Your task to perform on an android device: Open Maps and search for coffee Image 0: 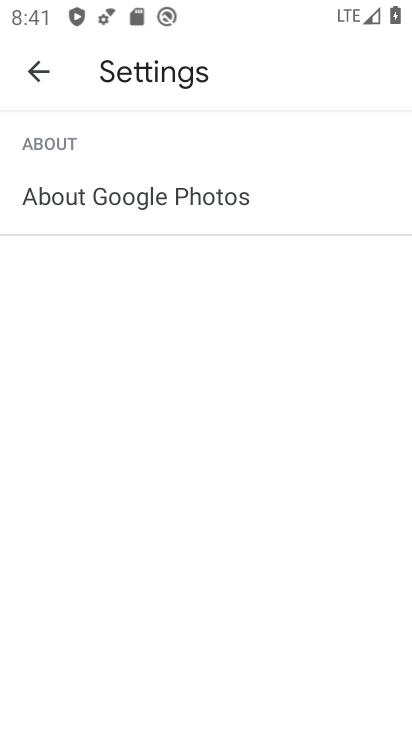
Step 0: press home button
Your task to perform on an android device: Open Maps and search for coffee Image 1: 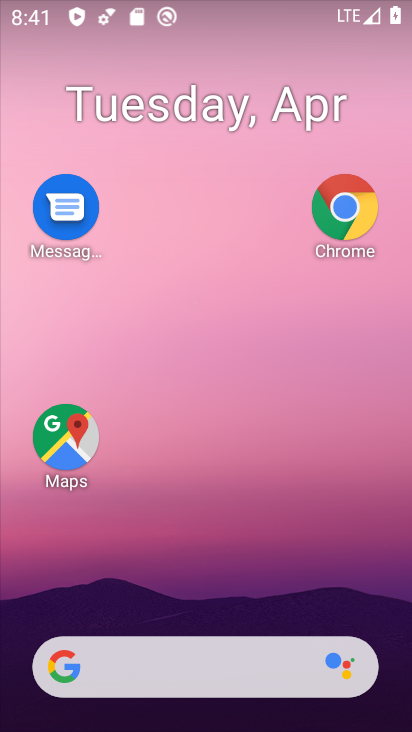
Step 1: click (56, 428)
Your task to perform on an android device: Open Maps and search for coffee Image 2: 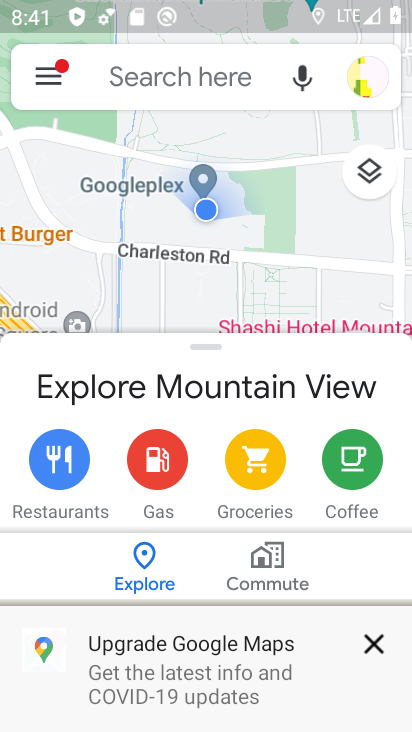
Step 2: click (149, 67)
Your task to perform on an android device: Open Maps and search for coffee Image 3: 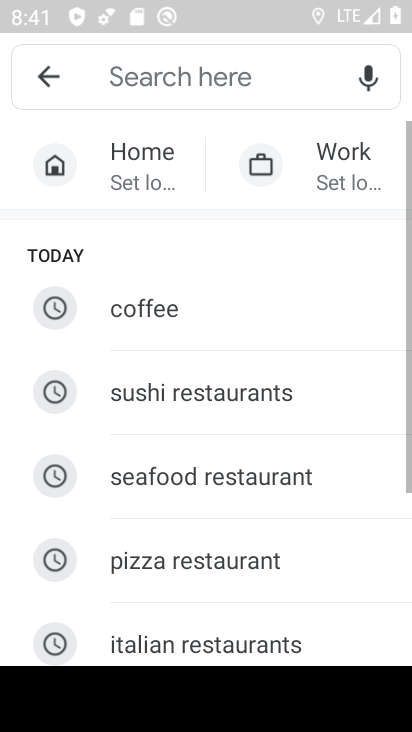
Step 3: click (170, 303)
Your task to perform on an android device: Open Maps and search for coffee Image 4: 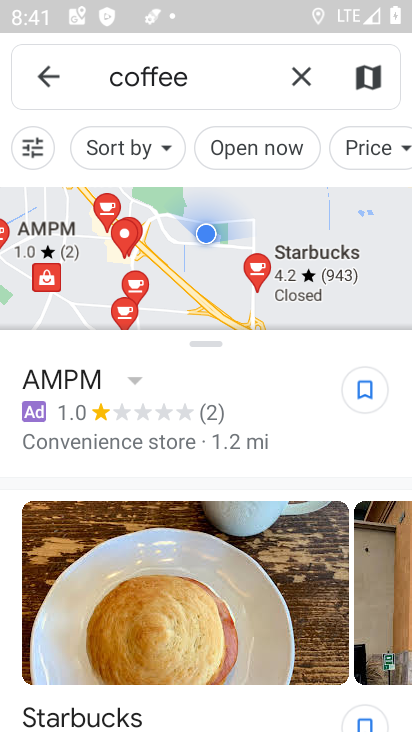
Step 4: task complete